Your task to perform on an android device: Open notification settings Image 0: 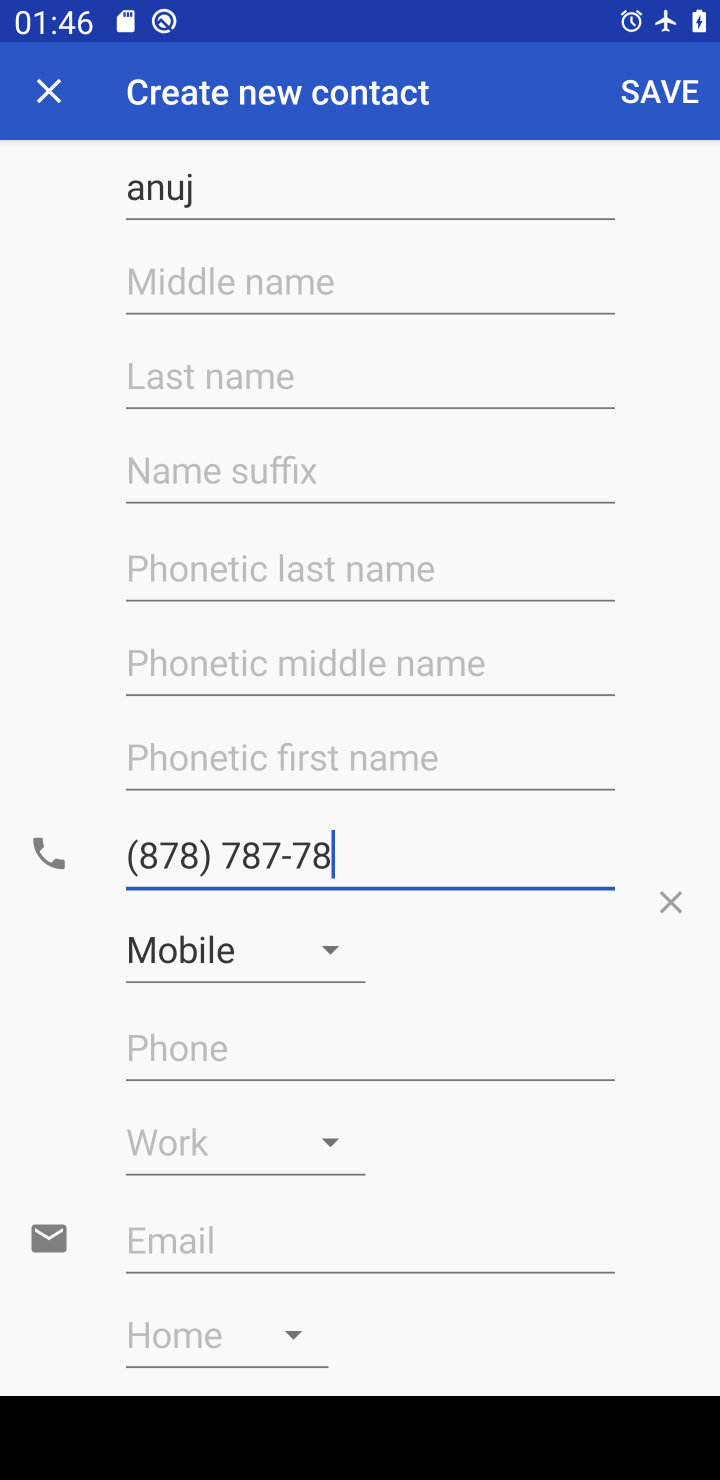
Step 0: press home button
Your task to perform on an android device: Open notification settings Image 1: 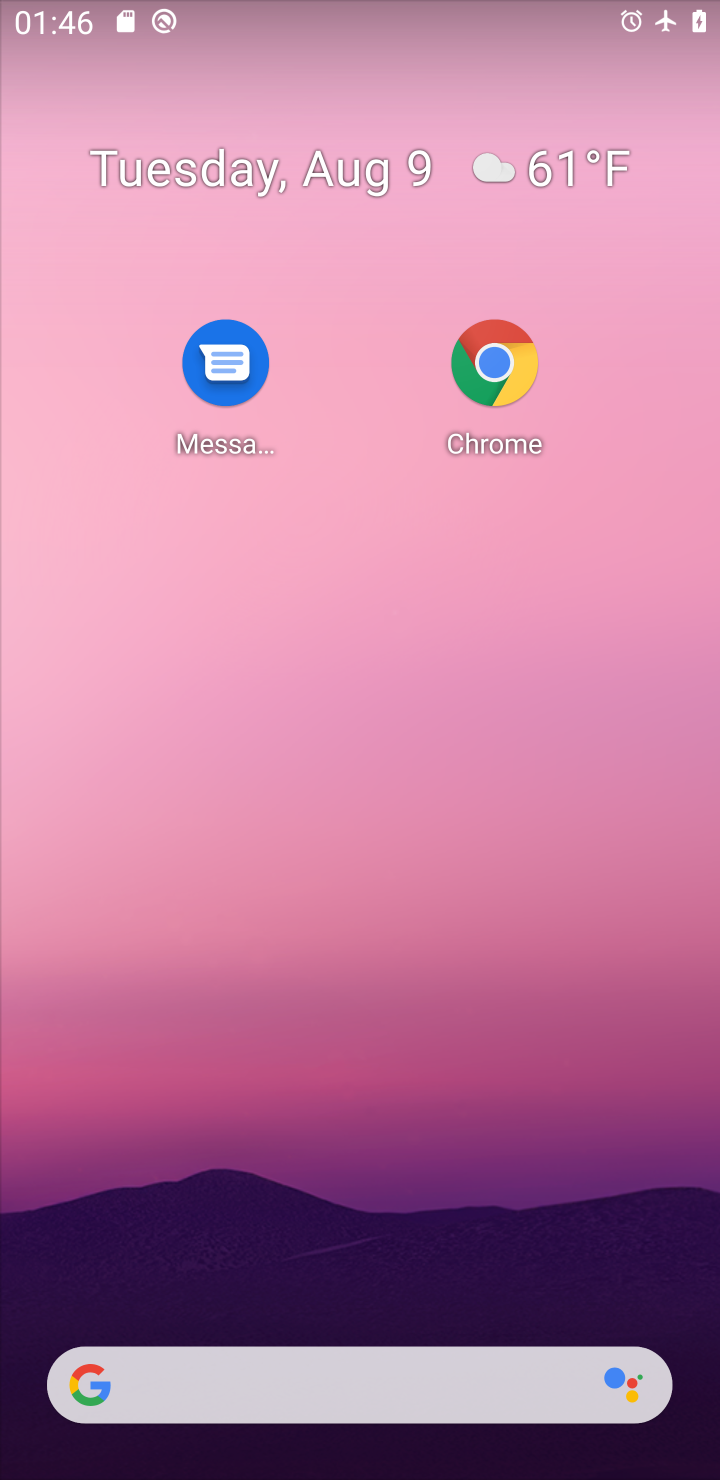
Step 1: drag from (280, 1252) to (352, 383)
Your task to perform on an android device: Open notification settings Image 2: 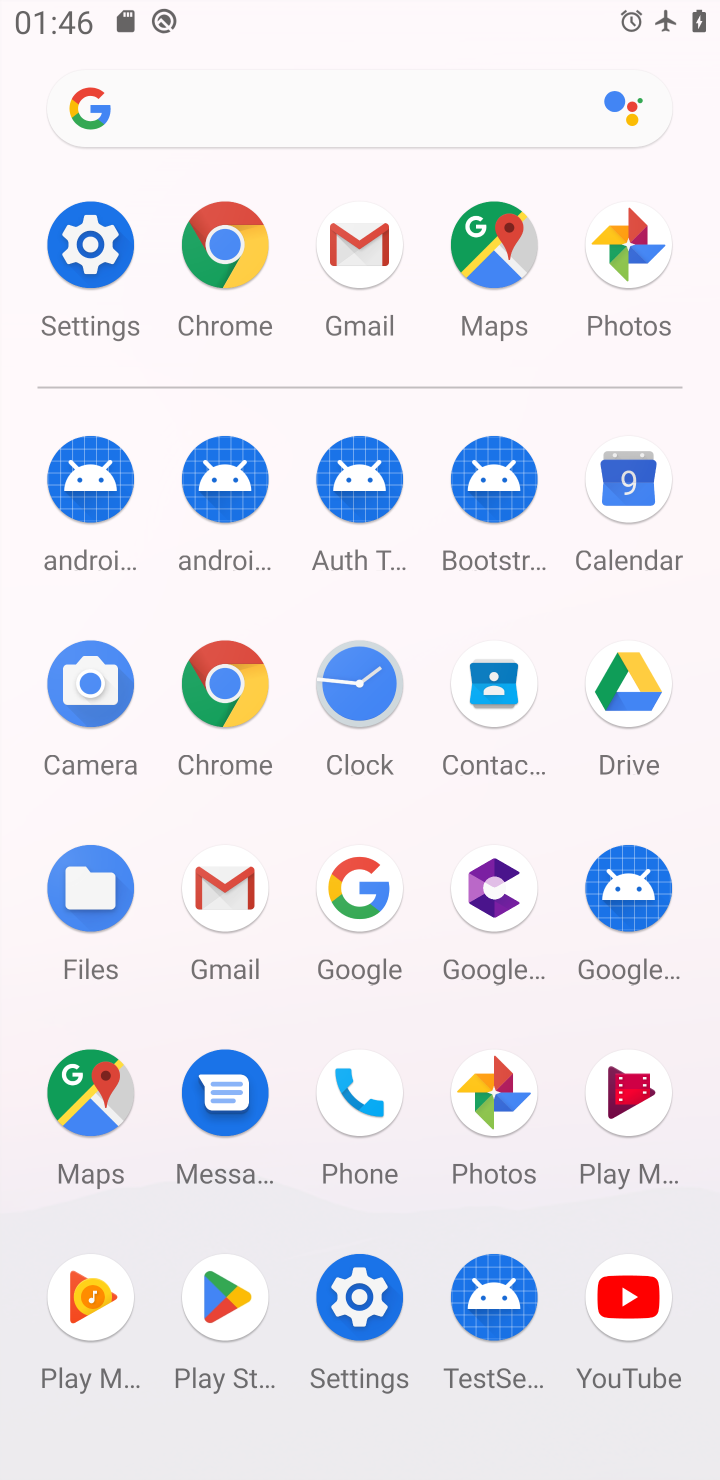
Step 2: click (72, 253)
Your task to perform on an android device: Open notification settings Image 3: 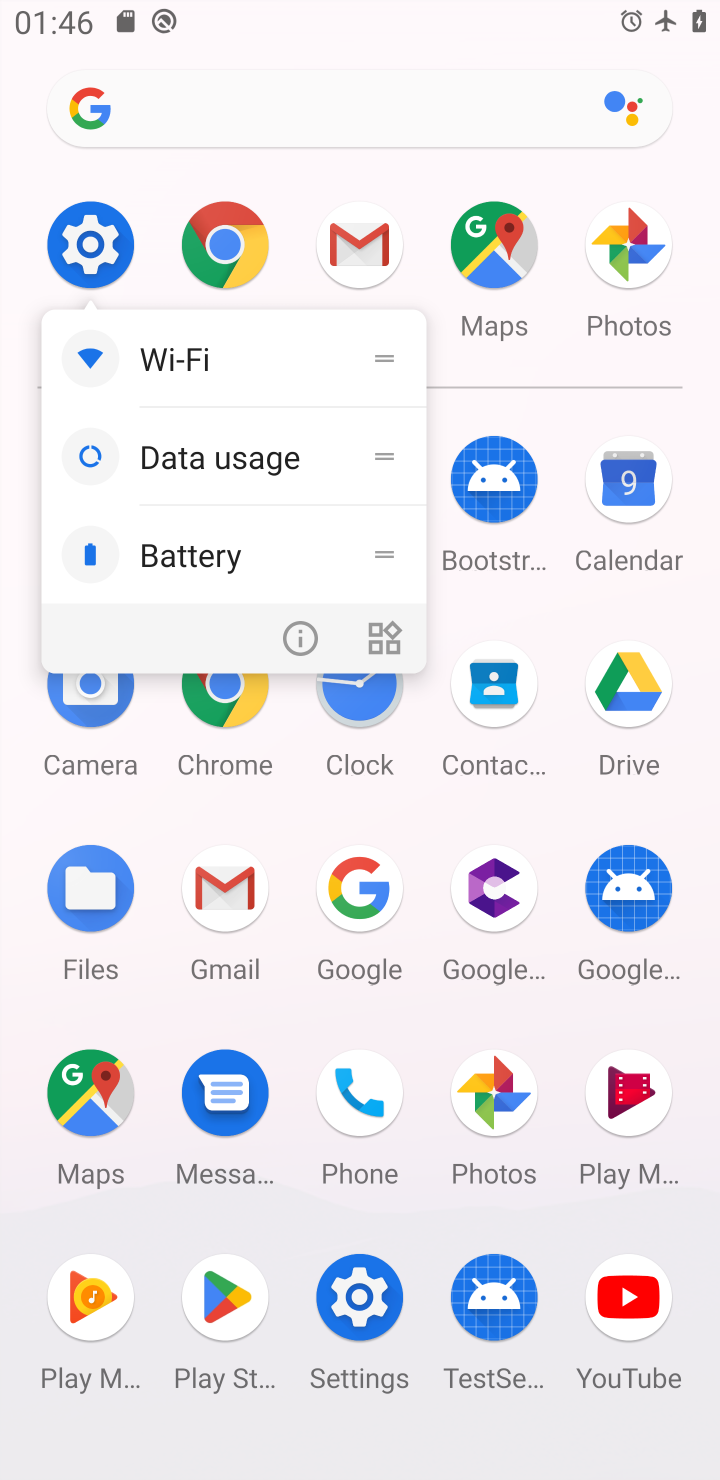
Step 3: click (92, 240)
Your task to perform on an android device: Open notification settings Image 4: 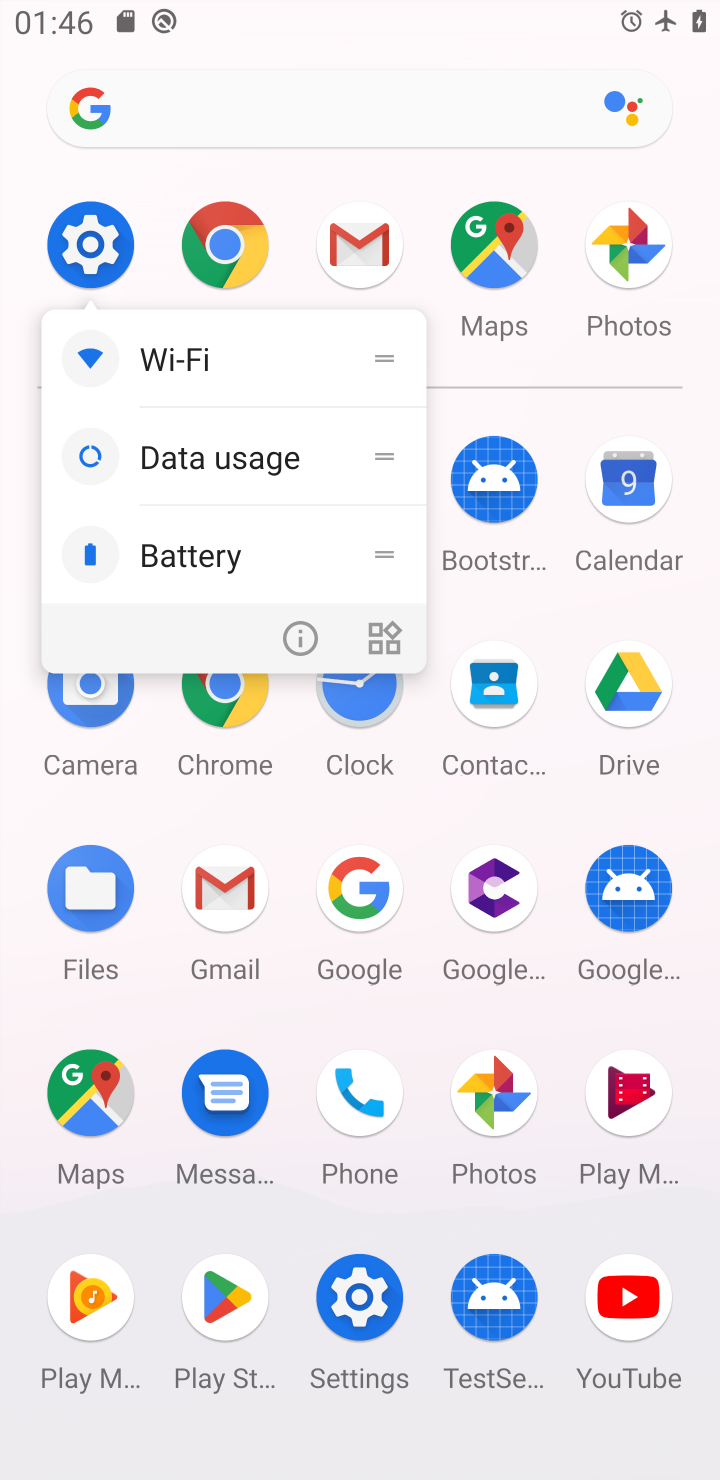
Step 4: click (92, 240)
Your task to perform on an android device: Open notification settings Image 5: 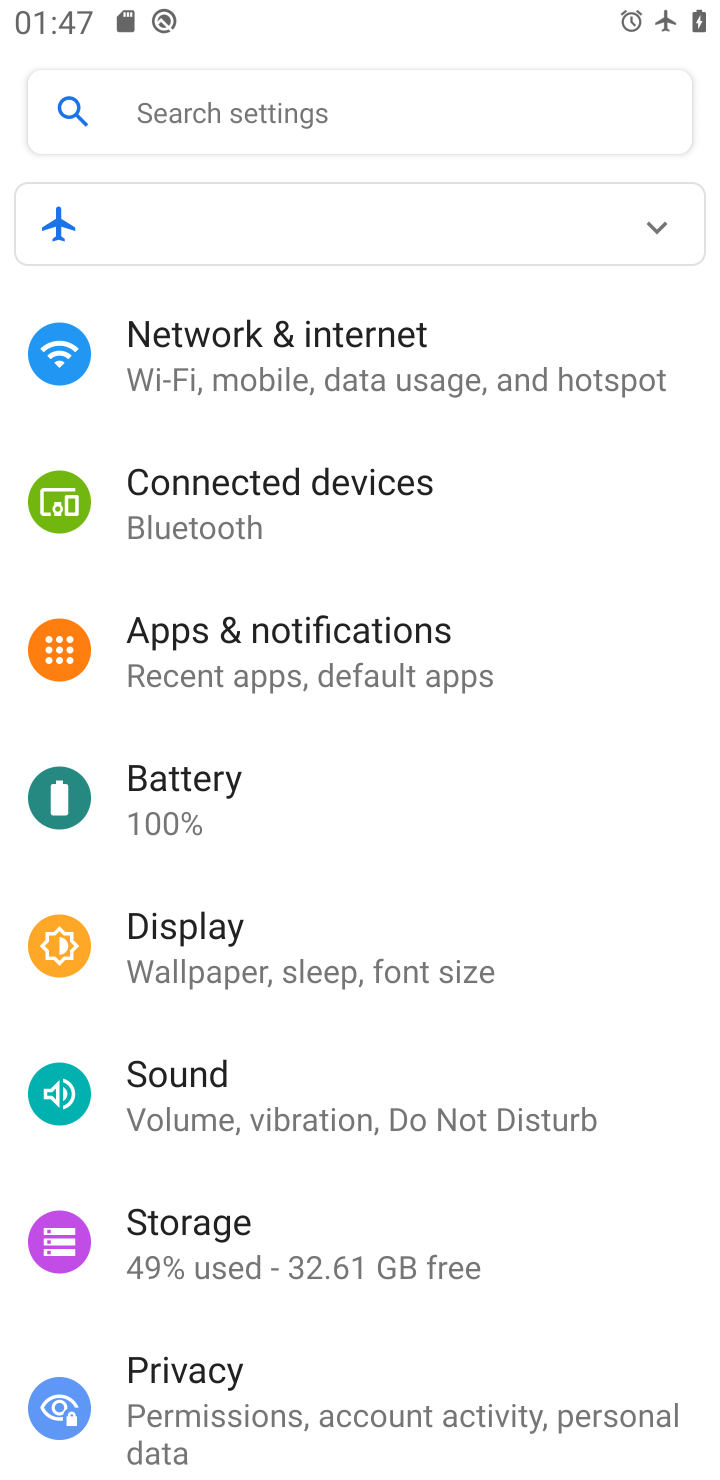
Step 5: click (237, 655)
Your task to perform on an android device: Open notification settings Image 6: 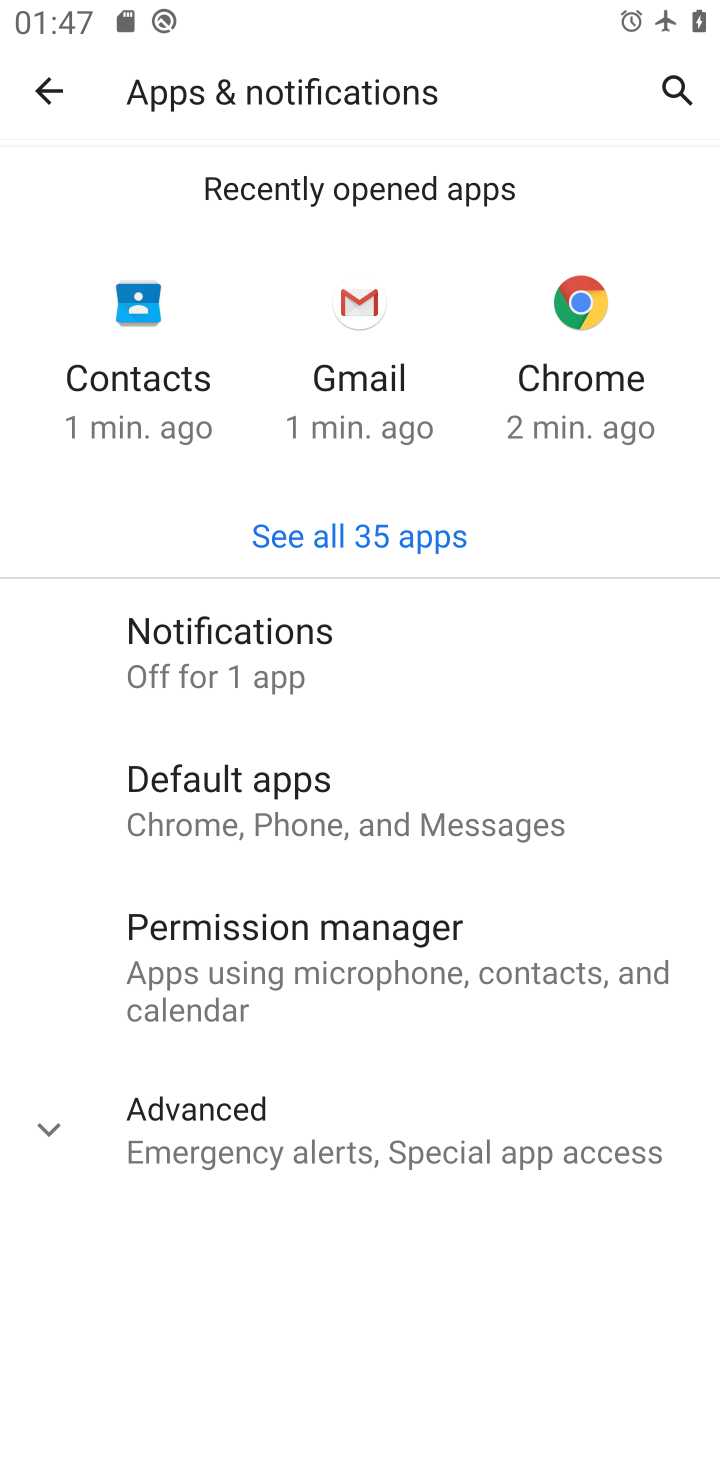
Step 6: click (271, 651)
Your task to perform on an android device: Open notification settings Image 7: 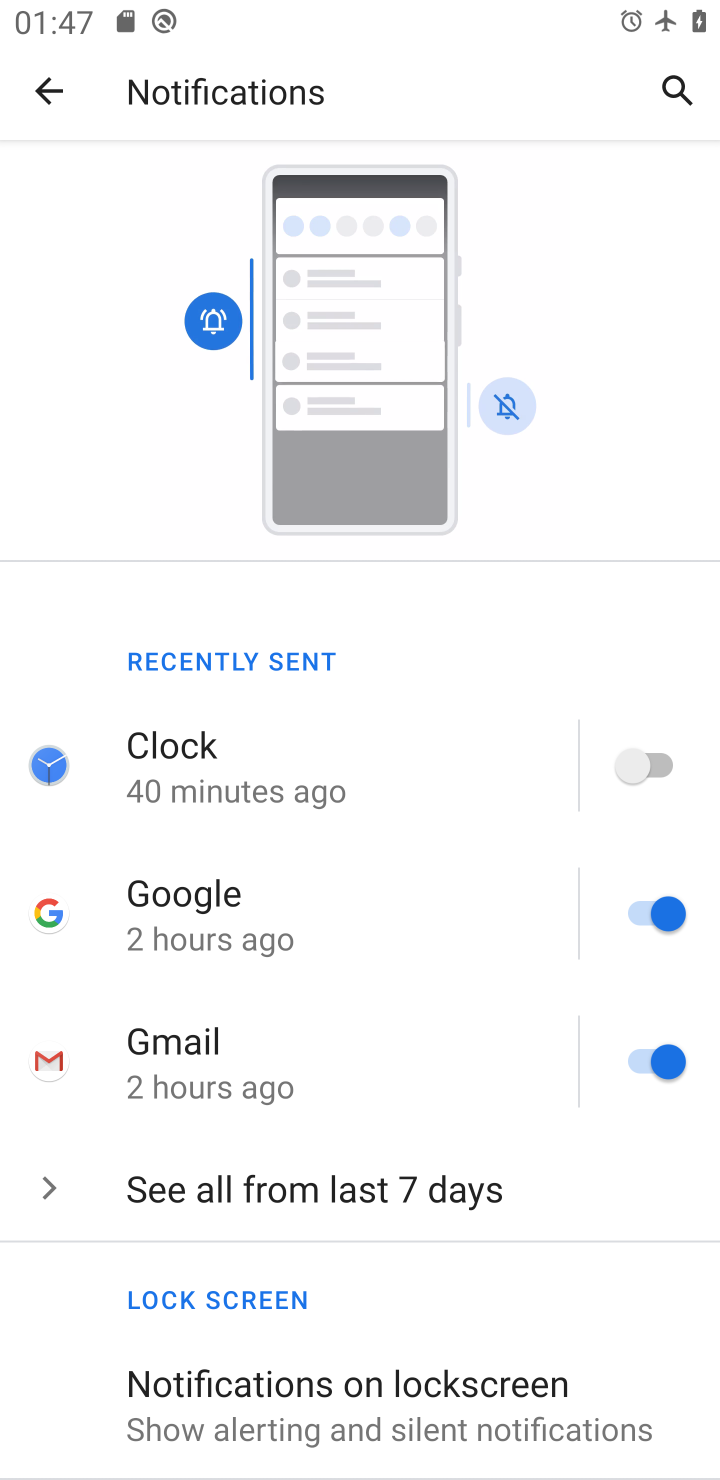
Step 7: click (283, 1165)
Your task to perform on an android device: Open notification settings Image 8: 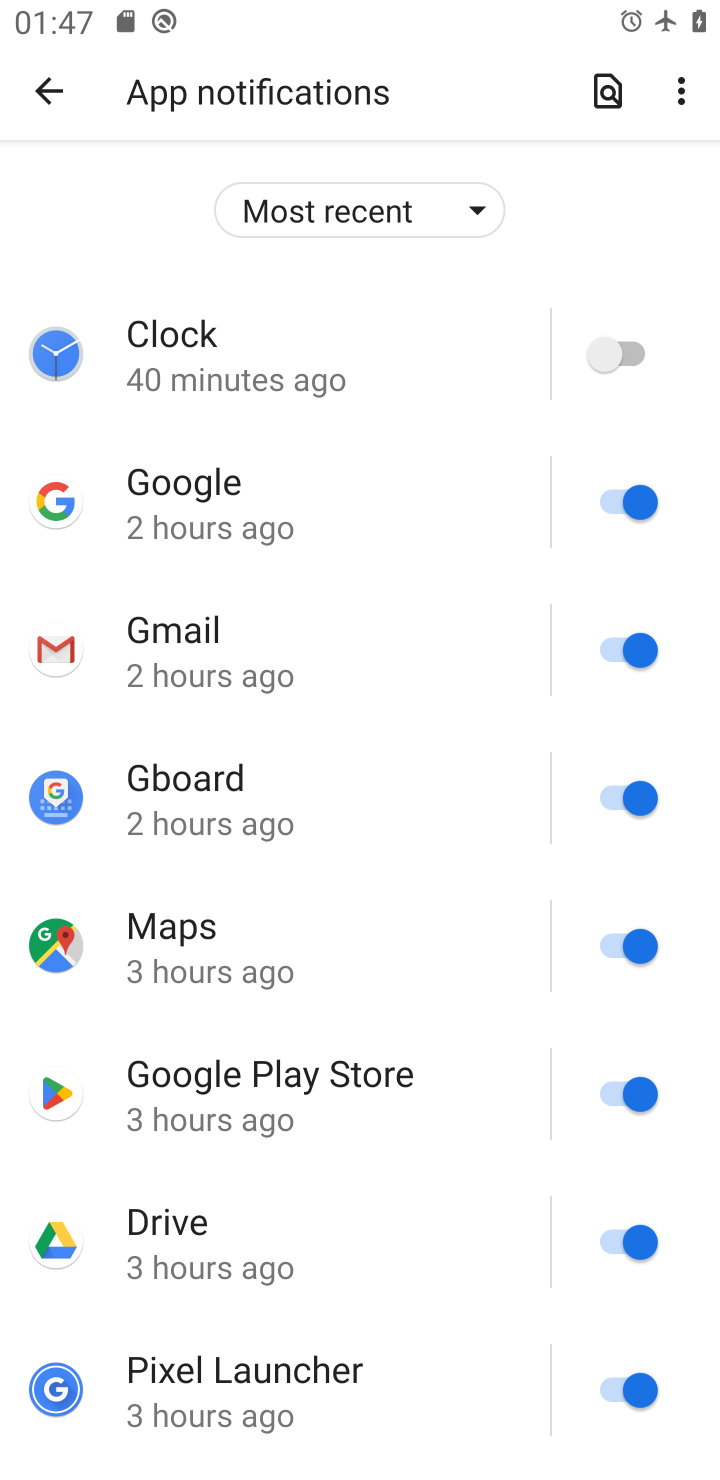
Step 8: task complete